Your task to perform on an android device: change the clock style Image 0: 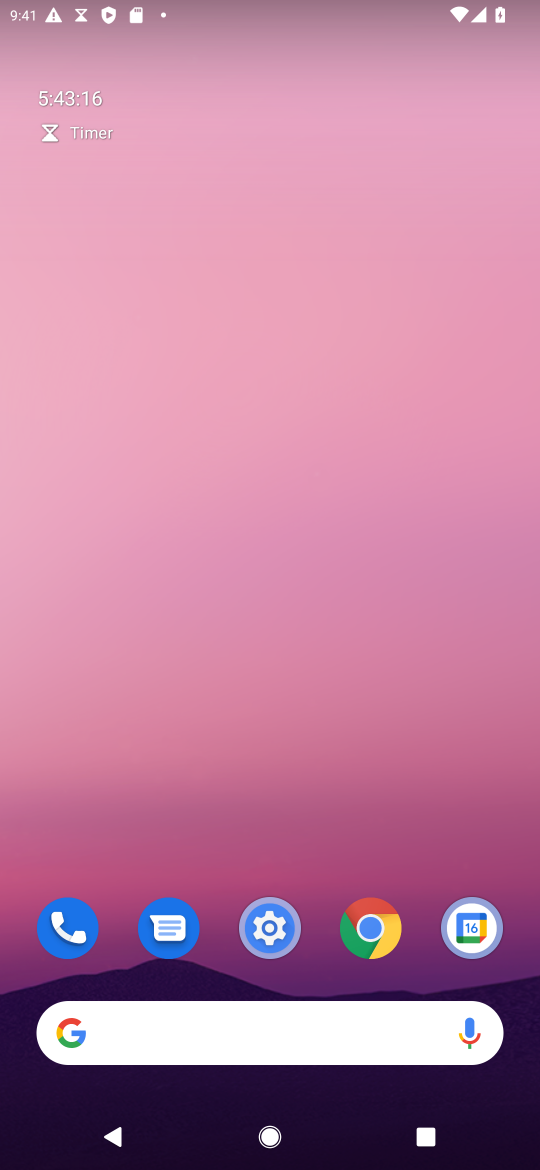
Step 0: press home button
Your task to perform on an android device: change the clock style Image 1: 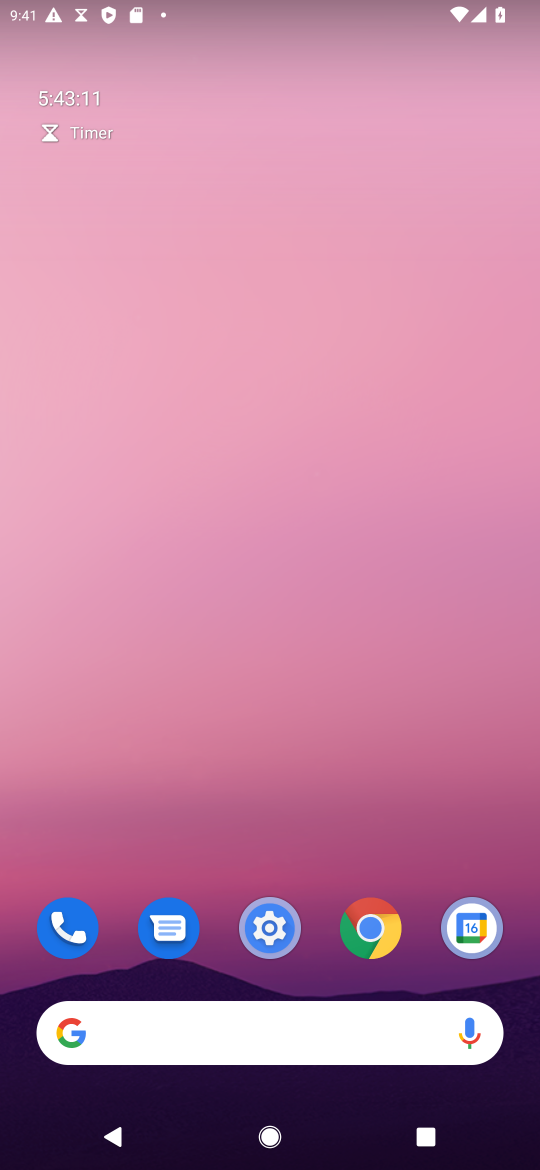
Step 1: drag from (330, 839) to (322, 103)
Your task to perform on an android device: change the clock style Image 2: 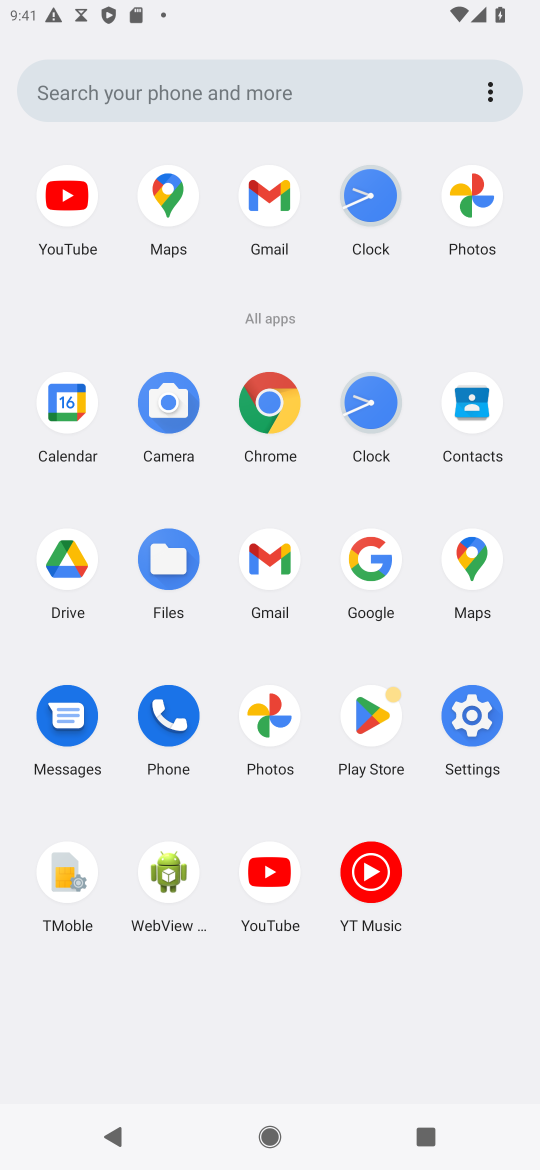
Step 2: click (468, 708)
Your task to perform on an android device: change the clock style Image 3: 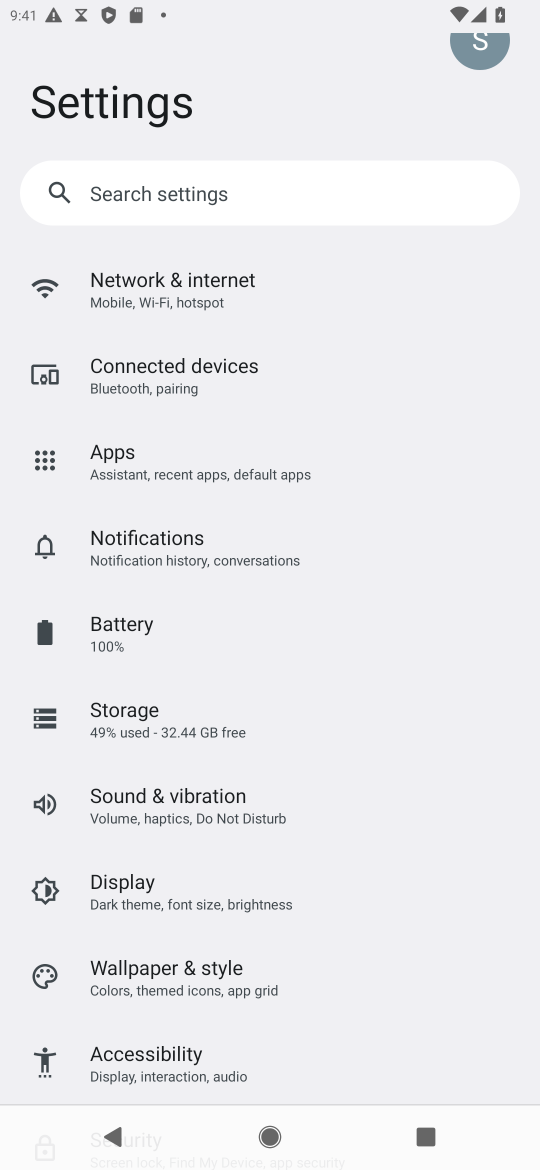
Step 3: press home button
Your task to perform on an android device: change the clock style Image 4: 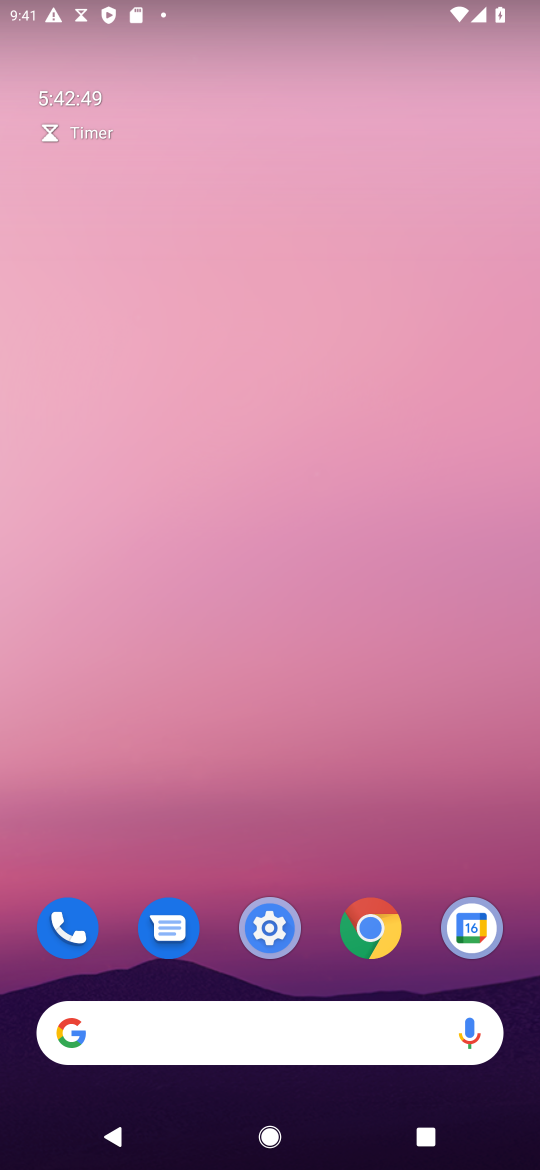
Step 4: drag from (395, 826) to (424, 238)
Your task to perform on an android device: change the clock style Image 5: 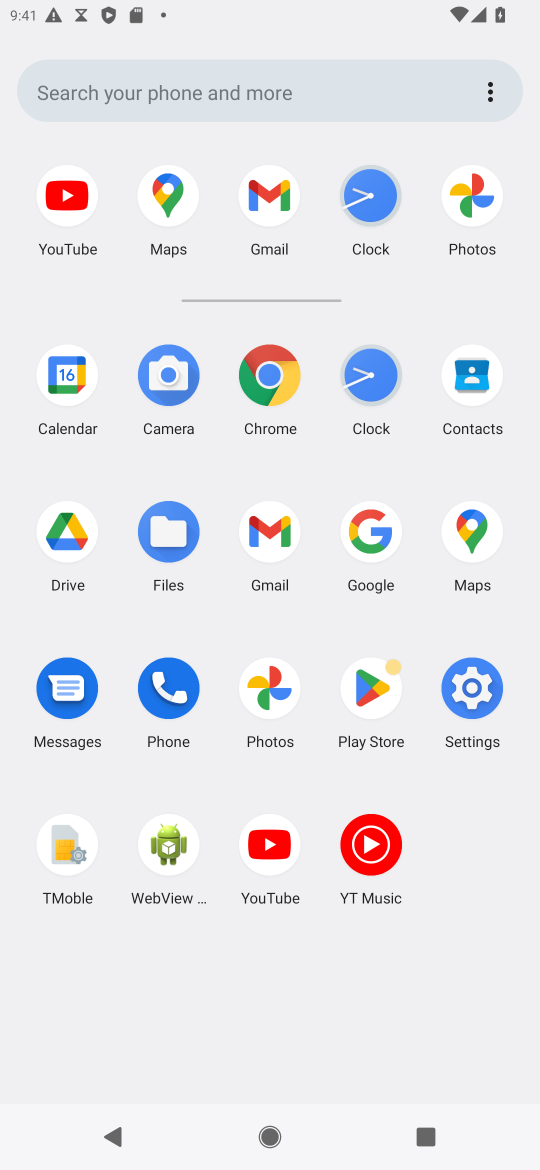
Step 5: click (364, 374)
Your task to perform on an android device: change the clock style Image 6: 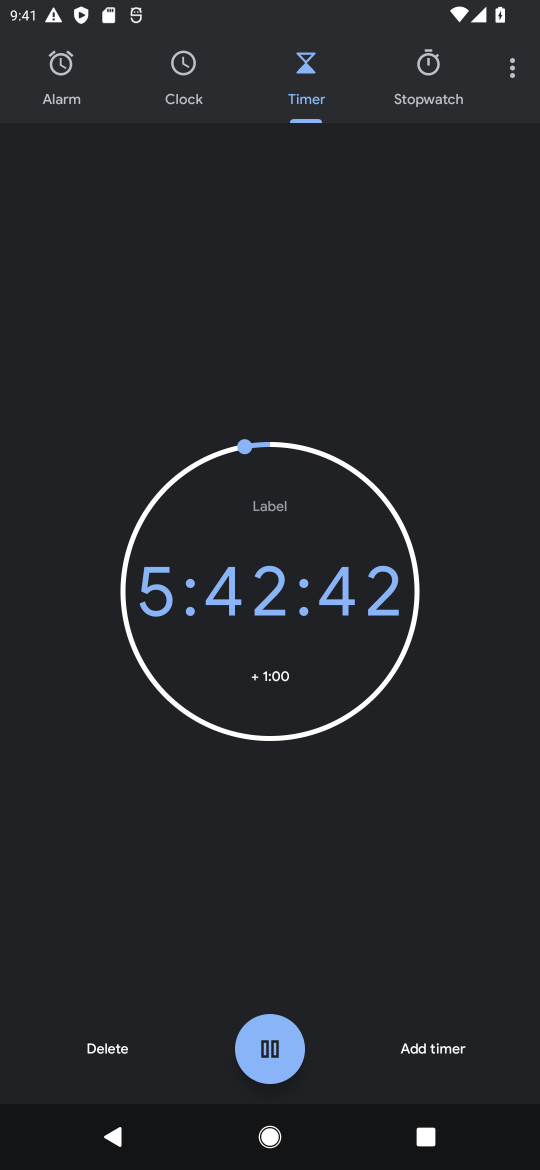
Step 6: click (502, 72)
Your task to perform on an android device: change the clock style Image 7: 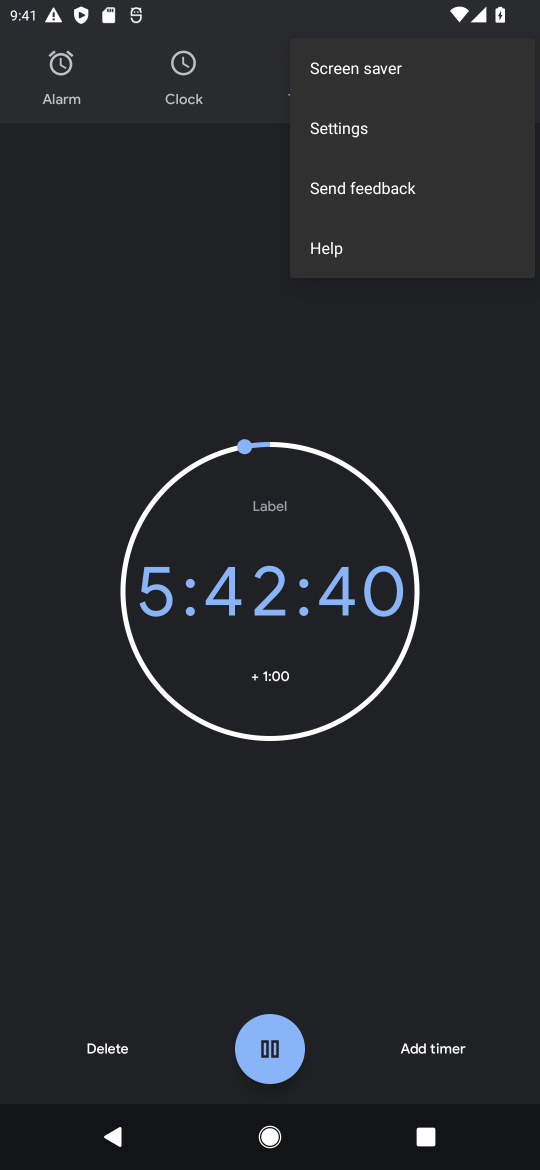
Step 7: click (361, 122)
Your task to perform on an android device: change the clock style Image 8: 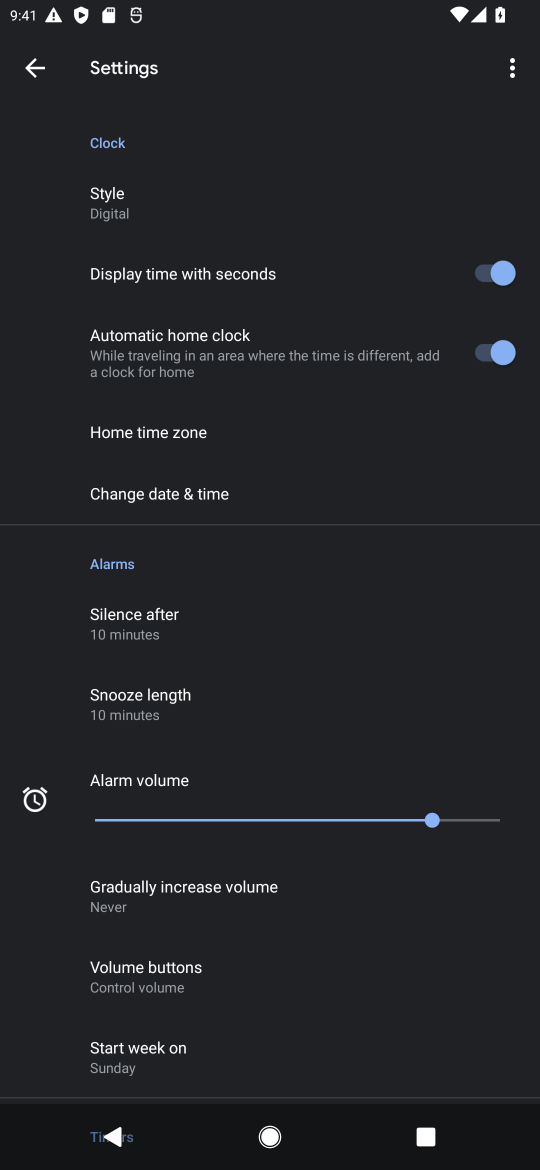
Step 8: click (118, 207)
Your task to perform on an android device: change the clock style Image 9: 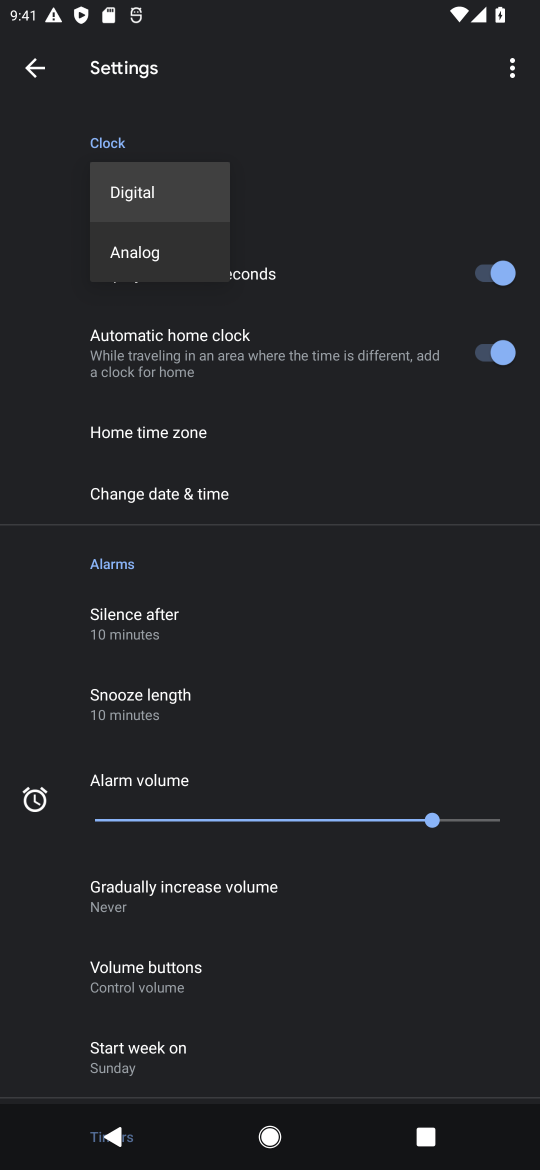
Step 9: click (136, 249)
Your task to perform on an android device: change the clock style Image 10: 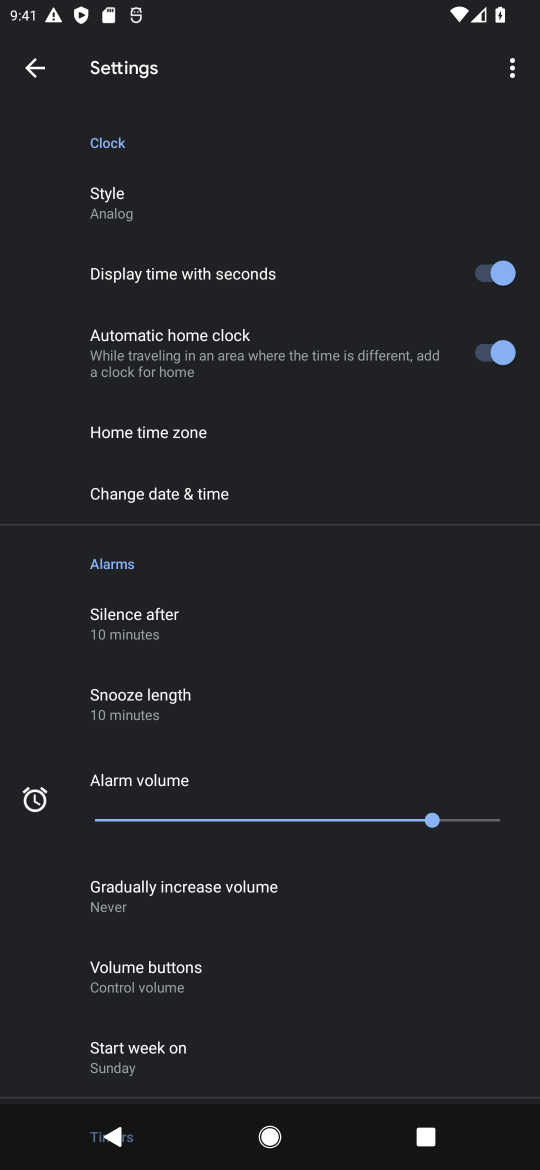
Step 10: task complete